Your task to perform on an android device: show emergency info Image 0: 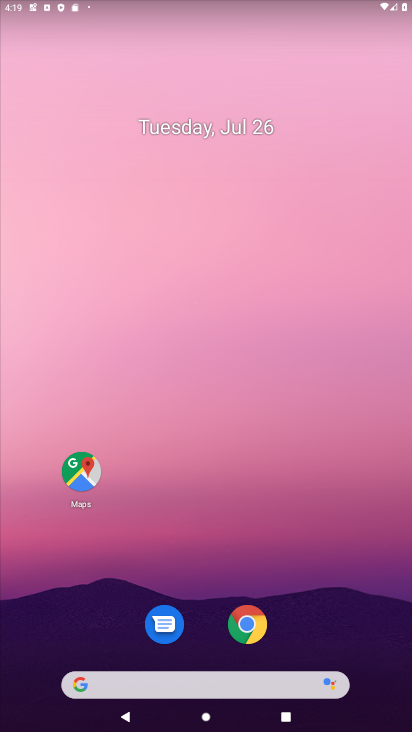
Step 0: drag from (103, 682) to (203, 4)
Your task to perform on an android device: show emergency info Image 1: 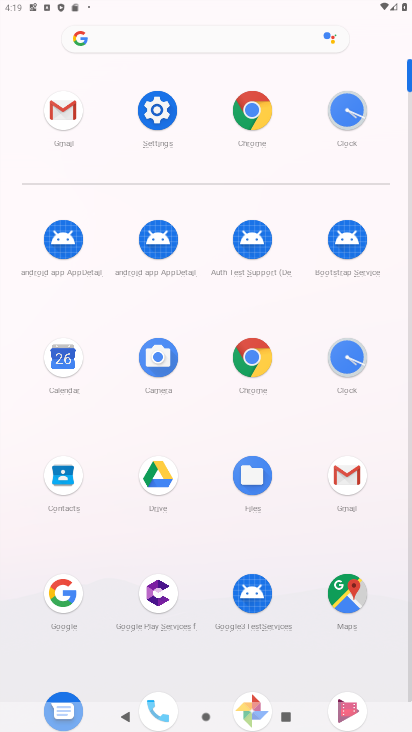
Step 1: click (152, 100)
Your task to perform on an android device: show emergency info Image 2: 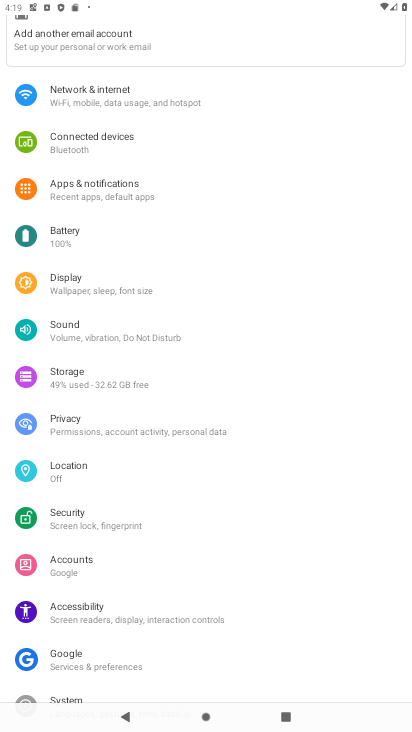
Step 2: drag from (237, 667) to (239, 73)
Your task to perform on an android device: show emergency info Image 3: 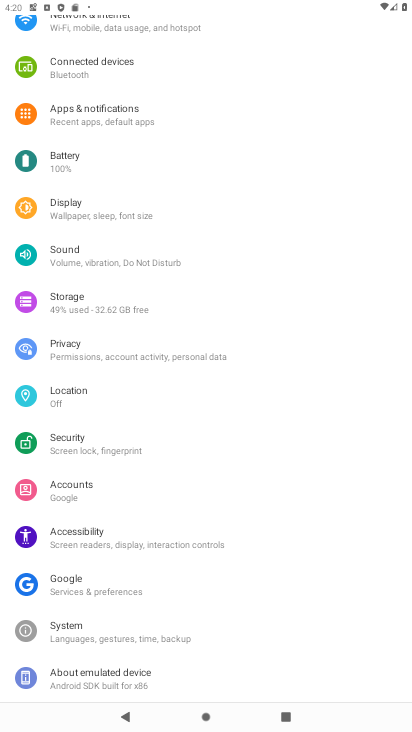
Step 3: click (186, 676)
Your task to perform on an android device: show emergency info Image 4: 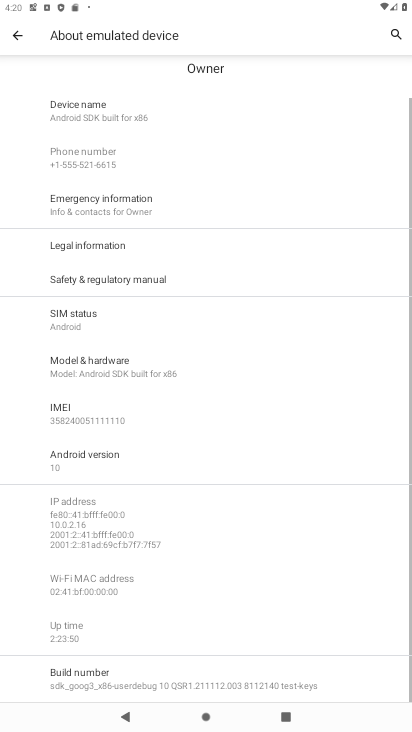
Step 4: click (149, 210)
Your task to perform on an android device: show emergency info Image 5: 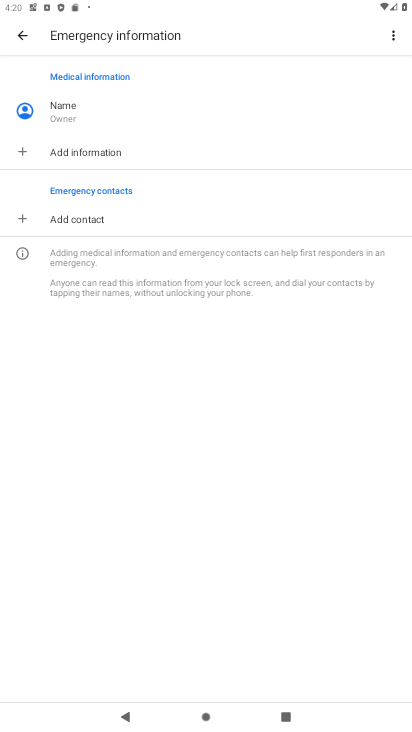
Step 5: task complete